Your task to perform on an android device: Show me productivity apps on the Play Store Image 0: 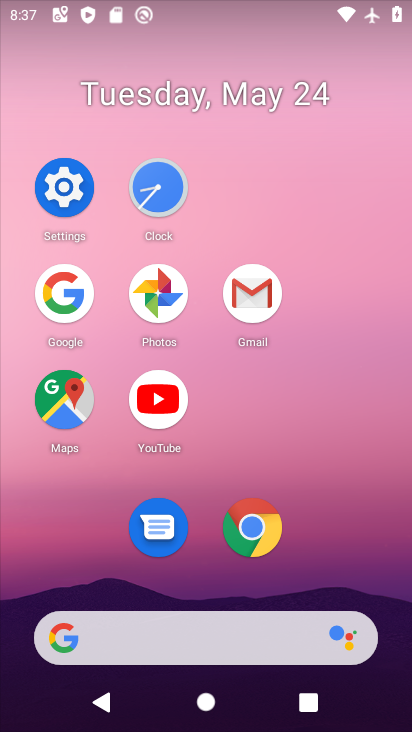
Step 0: drag from (307, 568) to (312, 156)
Your task to perform on an android device: Show me productivity apps on the Play Store Image 1: 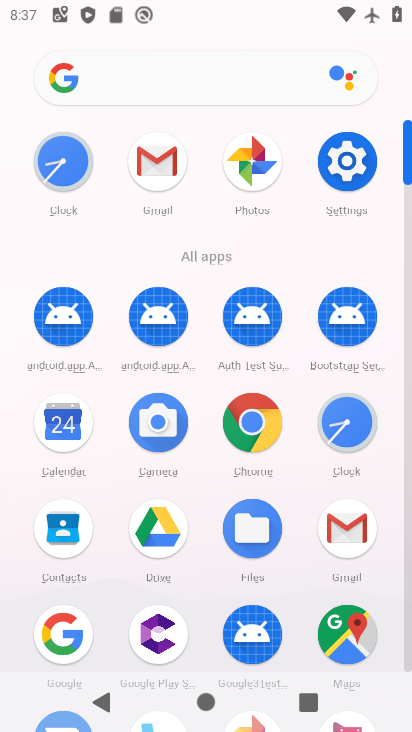
Step 1: drag from (178, 548) to (213, 231)
Your task to perform on an android device: Show me productivity apps on the Play Store Image 2: 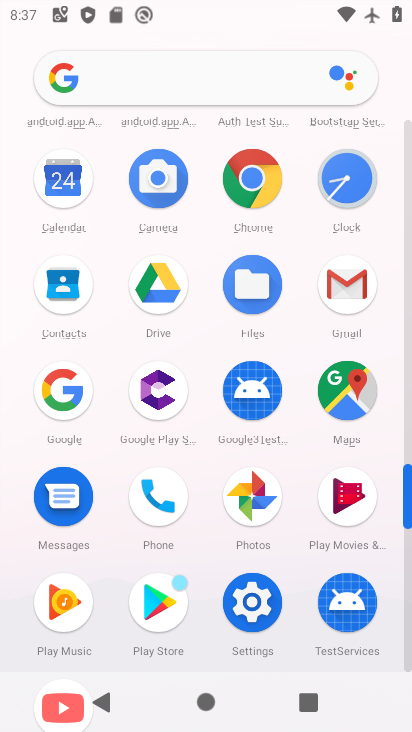
Step 2: click (145, 604)
Your task to perform on an android device: Show me productivity apps on the Play Store Image 3: 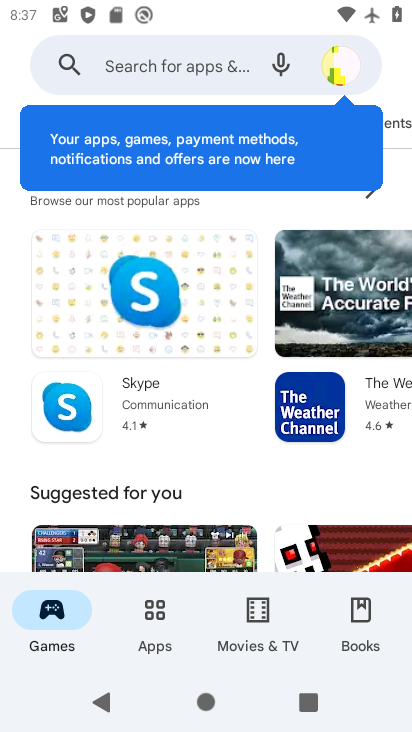
Step 3: click (162, 638)
Your task to perform on an android device: Show me productivity apps on the Play Store Image 4: 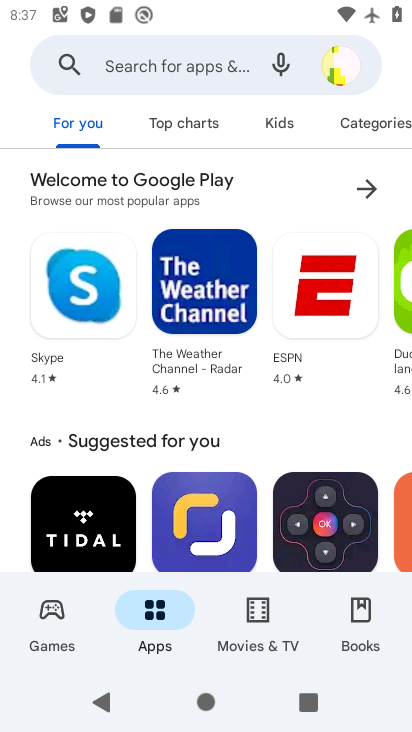
Step 4: click (376, 129)
Your task to perform on an android device: Show me productivity apps on the Play Store Image 5: 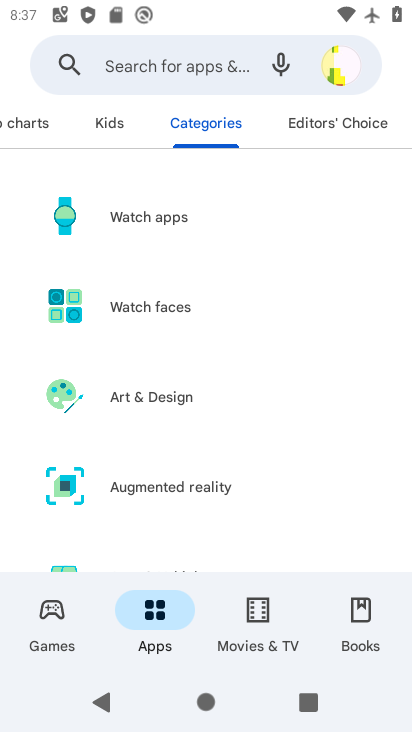
Step 5: drag from (210, 492) to (262, 140)
Your task to perform on an android device: Show me productivity apps on the Play Store Image 6: 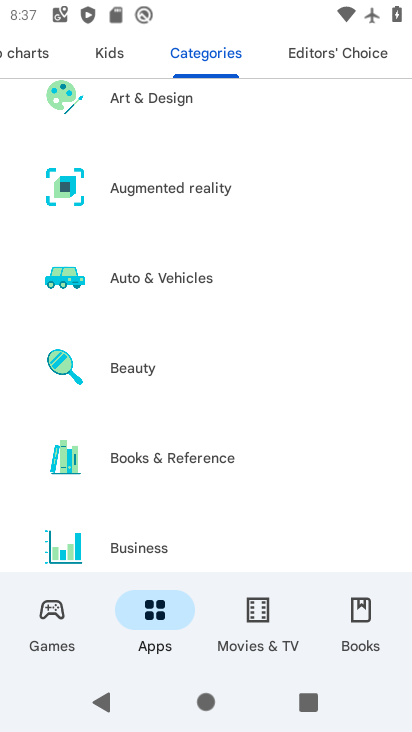
Step 6: drag from (261, 487) to (283, 139)
Your task to perform on an android device: Show me productivity apps on the Play Store Image 7: 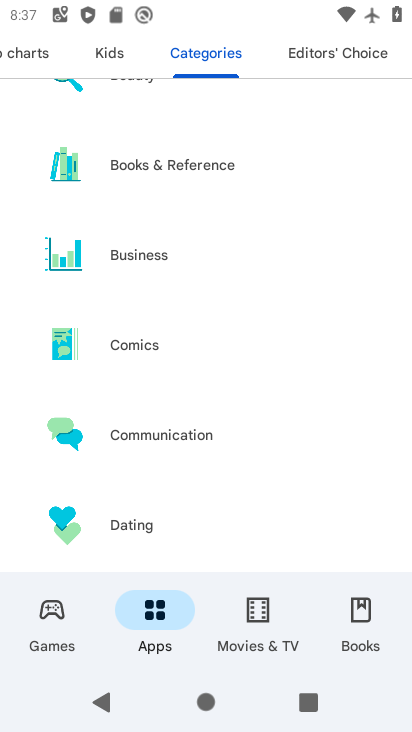
Step 7: drag from (193, 505) to (221, 142)
Your task to perform on an android device: Show me productivity apps on the Play Store Image 8: 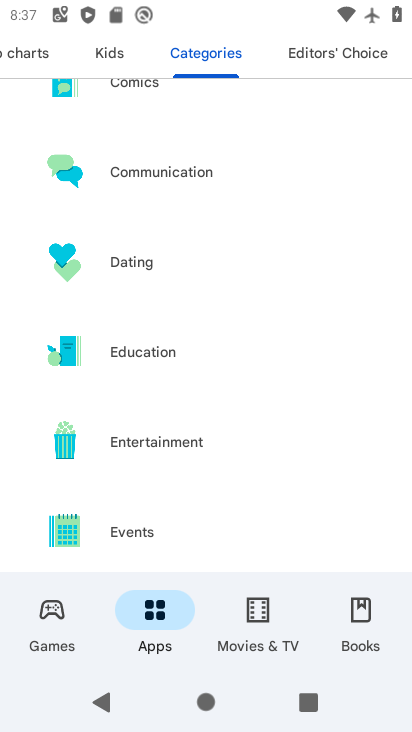
Step 8: drag from (211, 484) to (250, 184)
Your task to perform on an android device: Show me productivity apps on the Play Store Image 9: 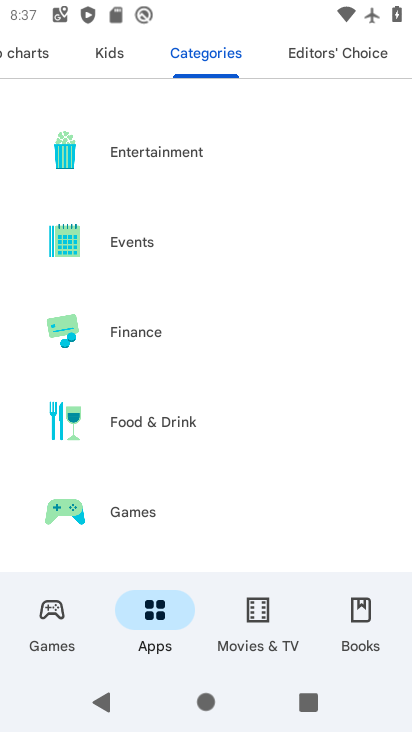
Step 9: drag from (217, 503) to (262, 142)
Your task to perform on an android device: Show me productivity apps on the Play Store Image 10: 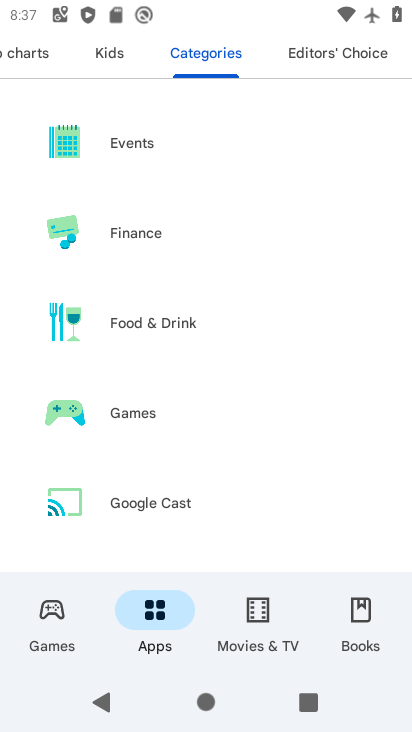
Step 10: drag from (233, 479) to (239, 148)
Your task to perform on an android device: Show me productivity apps on the Play Store Image 11: 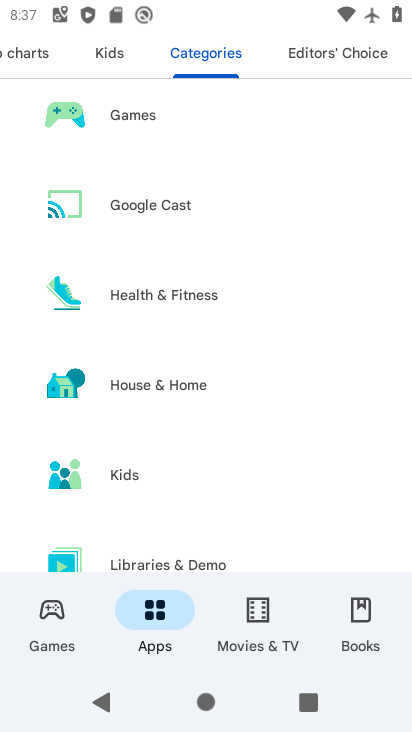
Step 11: drag from (230, 514) to (256, 222)
Your task to perform on an android device: Show me productivity apps on the Play Store Image 12: 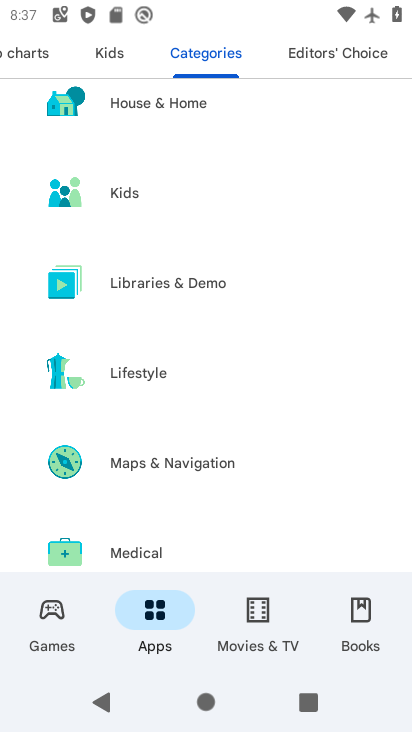
Step 12: drag from (222, 502) to (267, 162)
Your task to perform on an android device: Show me productivity apps on the Play Store Image 13: 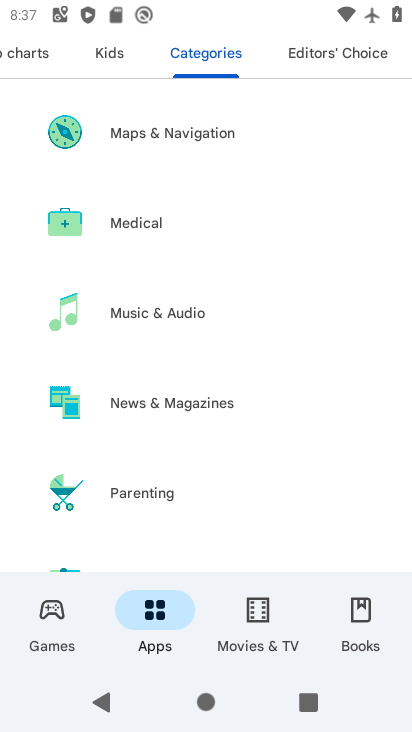
Step 13: drag from (247, 433) to (287, 138)
Your task to perform on an android device: Show me productivity apps on the Play Store Image 14: 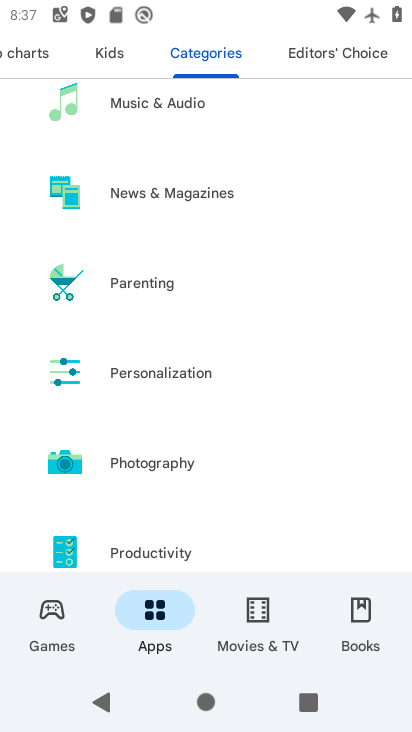
Step 14: click (176, 544)
Your task to perform on an android device: Show me productivity apps on the Play Store Image 15: 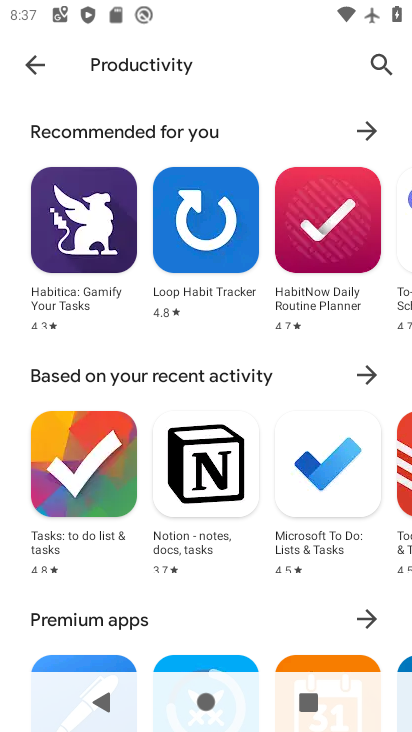
Step 15: task complete